Your task to perform on an android device: all mails in gmail Image 0: 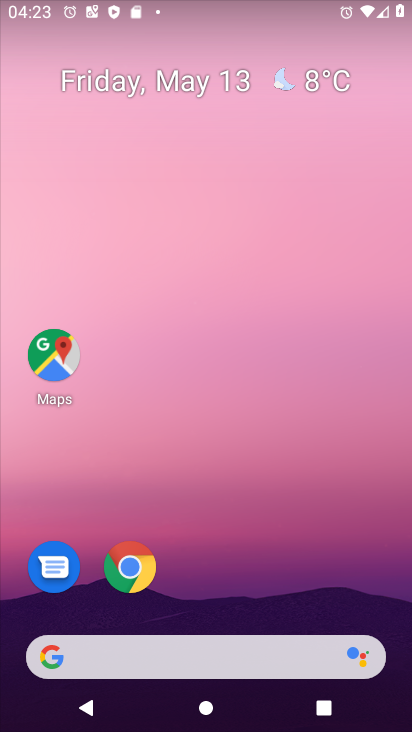
Step 0: drag from (303, 597) to (304, 15)
Your task to perform on an android device: all mails in gmail Image 1: 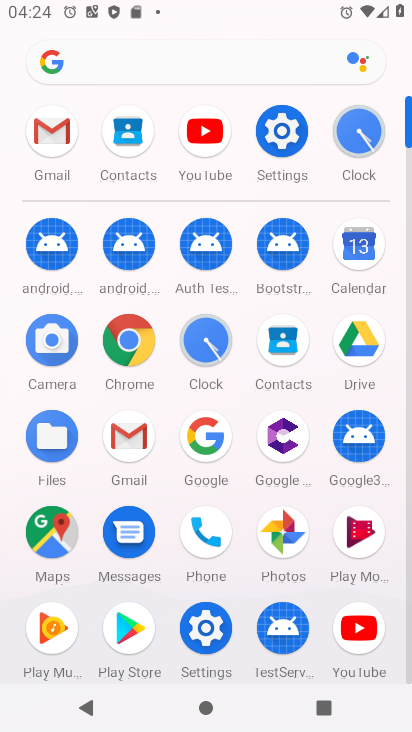
Step 1: click (48, 144)
Your task to perform on an android device: all mails in gmail Image 2: 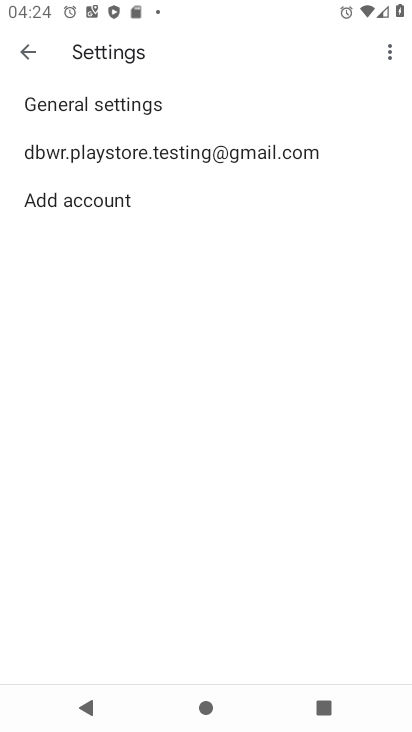
Step 2: click (21, 50)
Your task to perform on an android device: all mails in gmail Image 3: 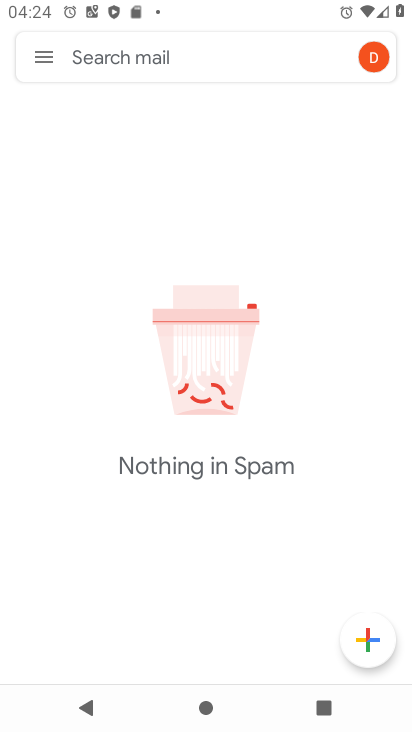
Step 3: click (34, 59)
Your task to perform on an android device: all mails in gmail Image 4: 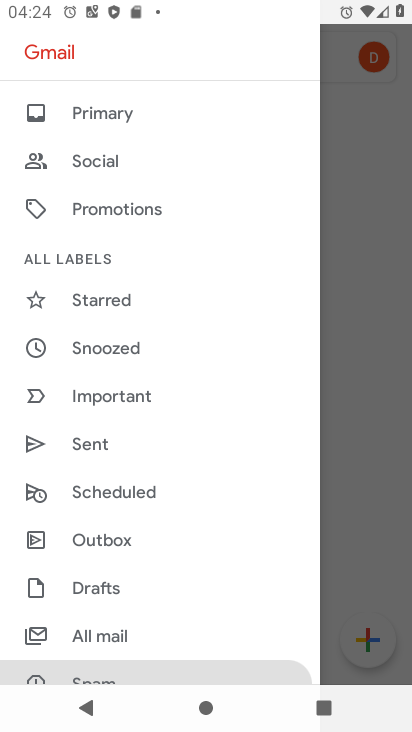
Step 4: click (97, 635)
Your task to perform on an android device: all mails in gmail Image 5: 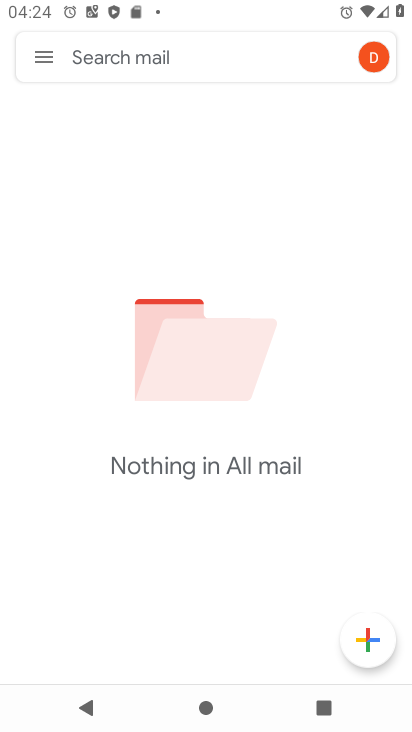
Step 5: task complete